Your task to perform on an android device: check google app version Image 0: 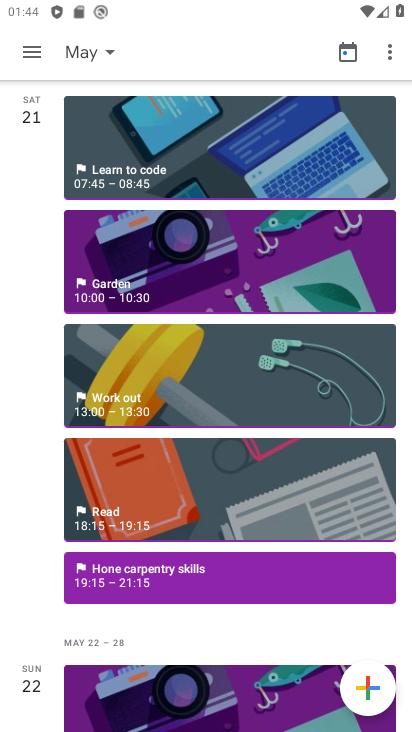
Step 0: press home button
Your task to perform on an android device: check google app version Image 1: 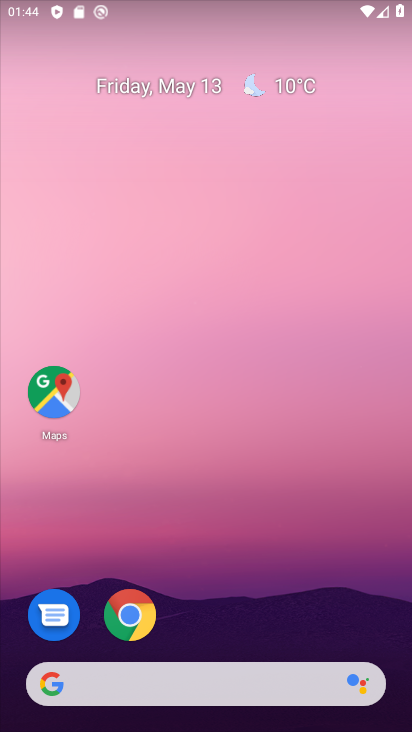
Step 1: drag from (233, 622) to (50, 157)
Your task to perform on an android device: check google app version Image 2: 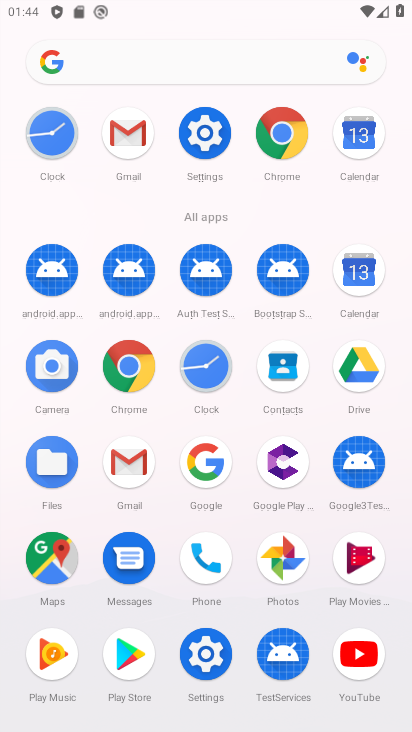
Step 2: click (198, 467)
Your task to perform on an android device: check google app version Image 3: 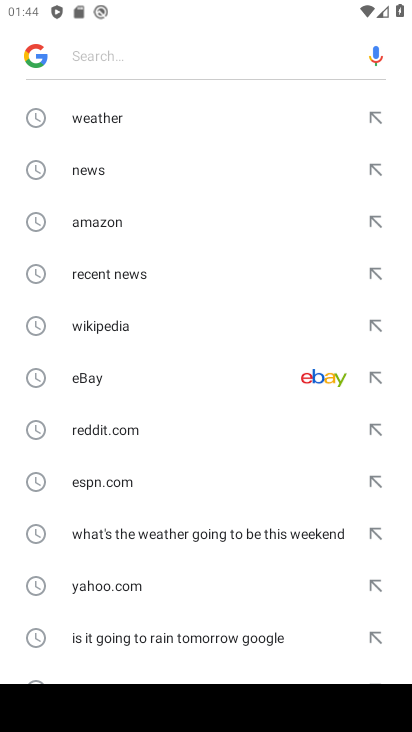
Step 3: press back button
Your task to perform on an android device: check google app version Image 4: 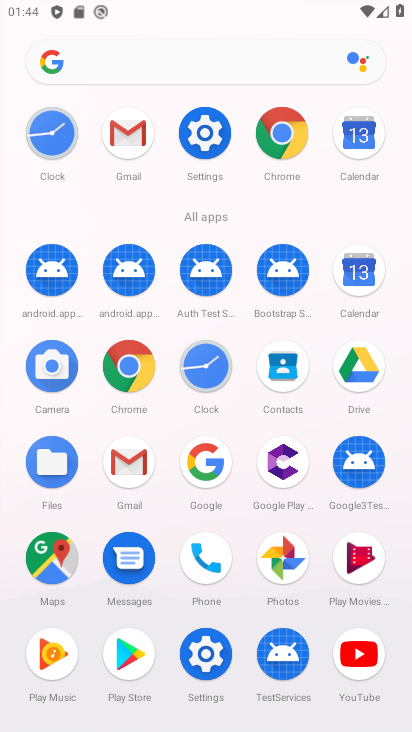
Step 4: click (197, 459)
Your task to perform on an android device: check google app version Image 5: 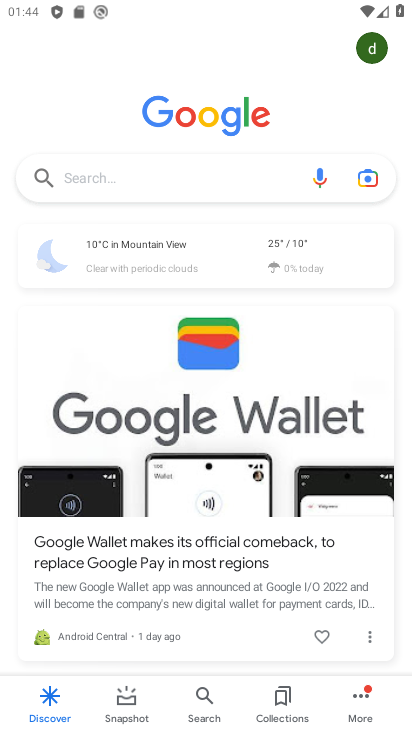
Step 5: click (361, 695)
Your task to perform on an android device: check google app version Image 6: 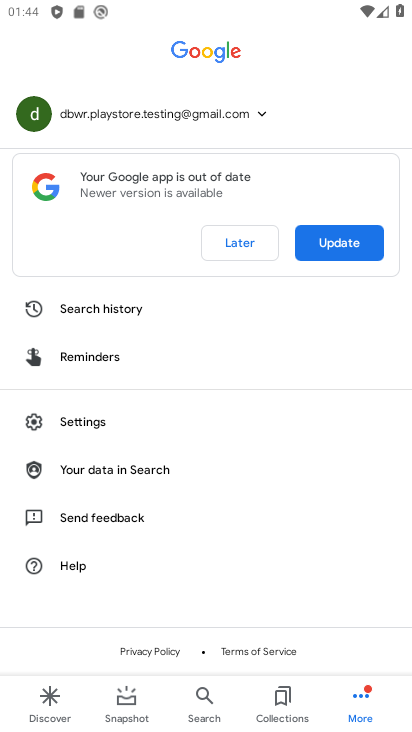
Step 6: click (77, 432)
Your task to perform on an android device: check google app version Image 7: 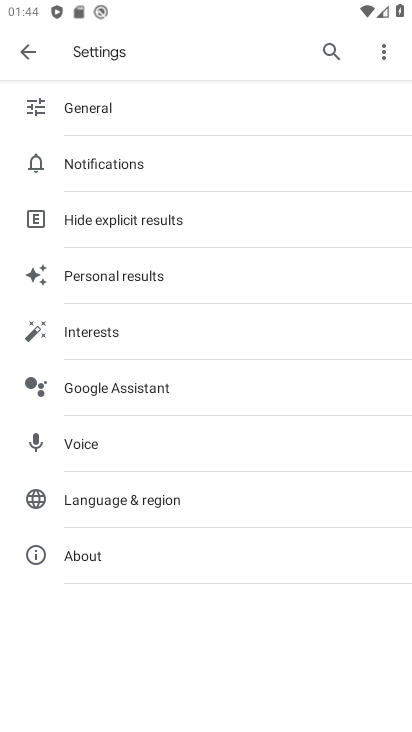
Step 7: click (77, 551)
Your task to perform on an android device: check google app version Image 8: 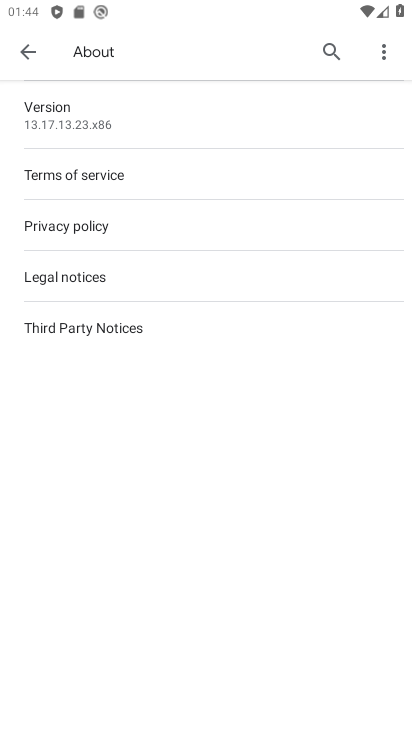
Step 8: task complete